Your task to perform on an android device: Open wifi settings Image 0: 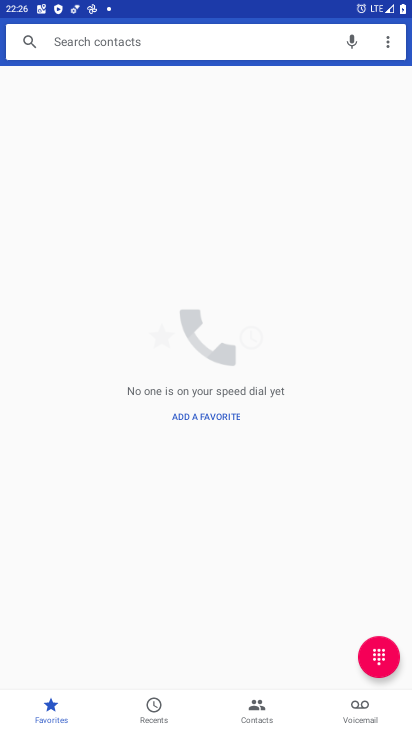
Step 0: press home button
Your task to perform on an android device: Open wifi settings Image 1: 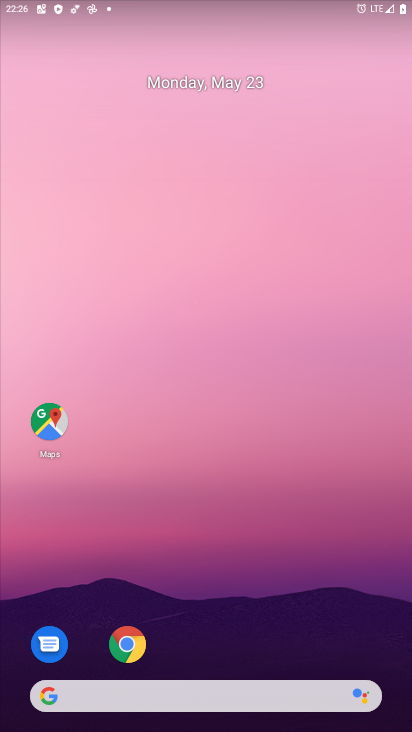
Step 1: drag from (256, 726) to (224, 174)
Your task to perform on an android device: Open wifi settings Image 2: 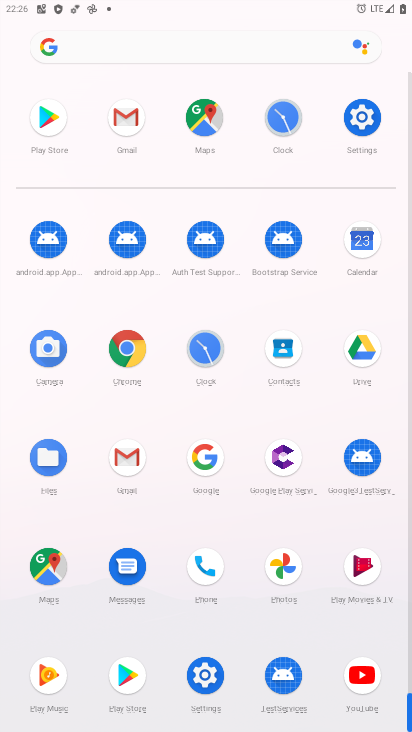
Step 2: click (368, 114)
Your task to perform on an android device: Open wifi settings Image 3: 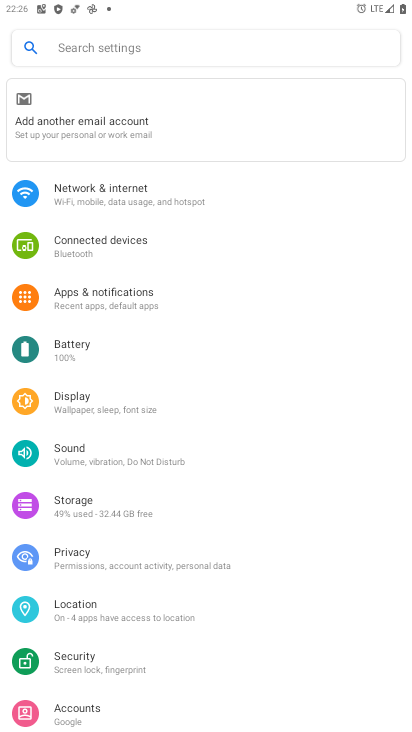
Step 3: click (164, 204)
Your task to perform on an android device: Open wifi settings Image 4: 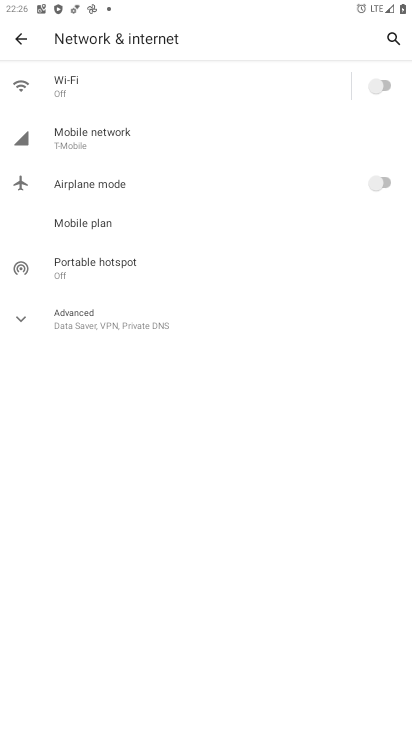
Step 4: click (183, 90)
Your task to perform on an android device: Open wifi settings Image 5: 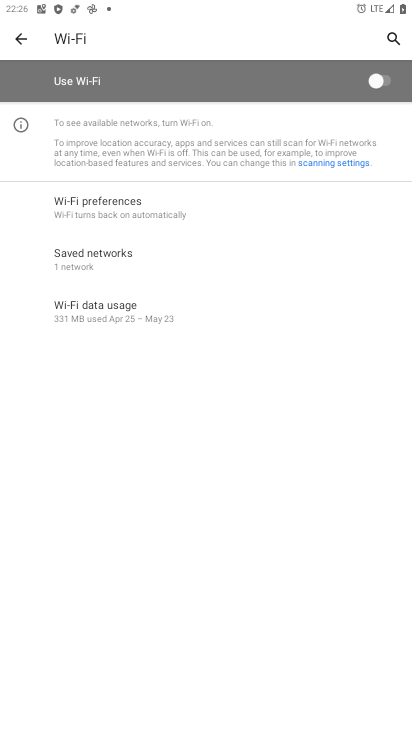
Step 5: task complete